Your task to perform on an android device: toggle priority inbox in the gmail app Image 0: 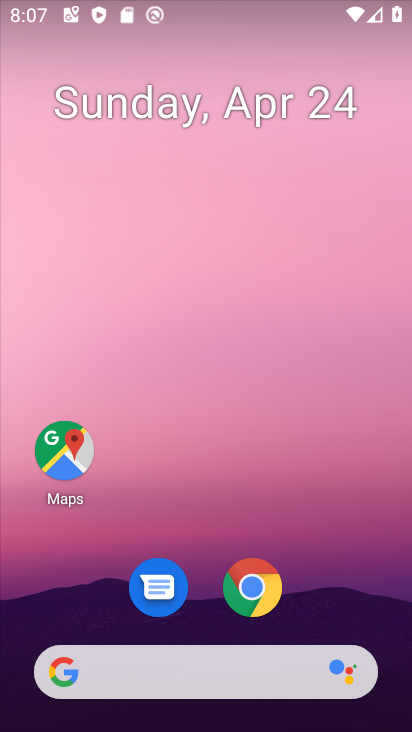
Step 0: drag from (323, 548) to (351, 576)
Your task to perform on an android device: toggle priority inbox in the gmail app Image 1: 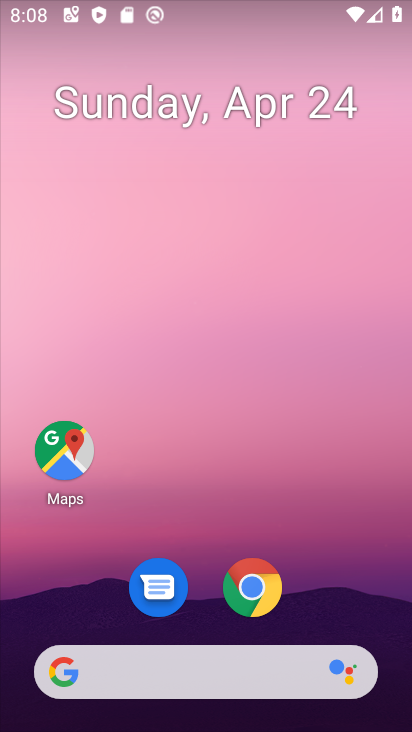
Step 1: drag from (341, 592) to (297, 44)
Your task to perform on an android device: toggle priority inbox in the gmail app Image 2: 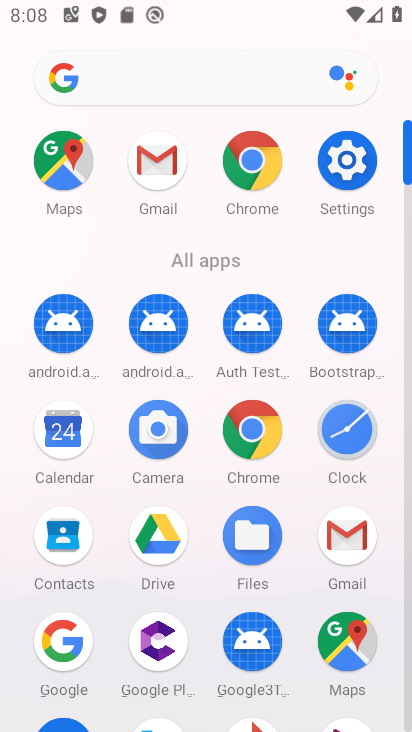
Step 2: click (159, 166)
Your task to perform on an android device: toggle priority inbox in the gmail app Image 3: 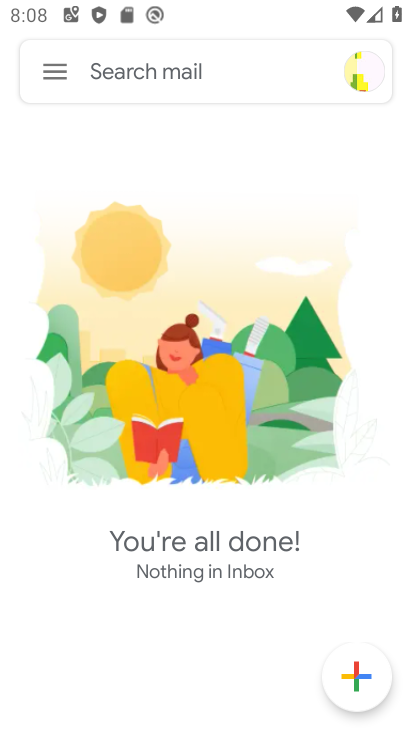
Step 3: click (62, 65)
Your task to perform on an android device: toggle priority inbox in the gmail app Image 4: 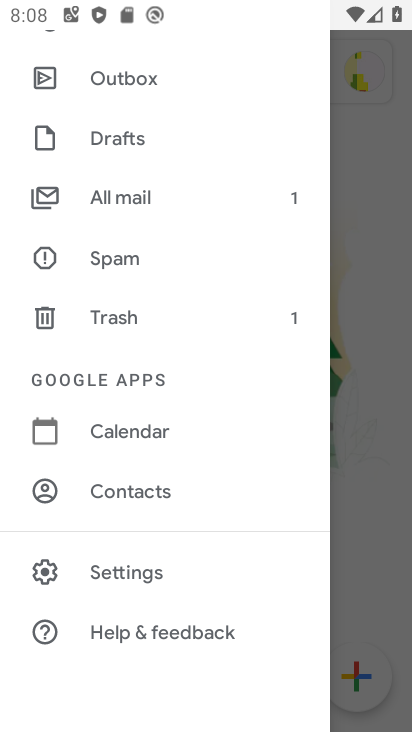
Step 4: click (151, 577)
Your task to perform on an android device: toggle priority inbox in the gmail app Image 5: 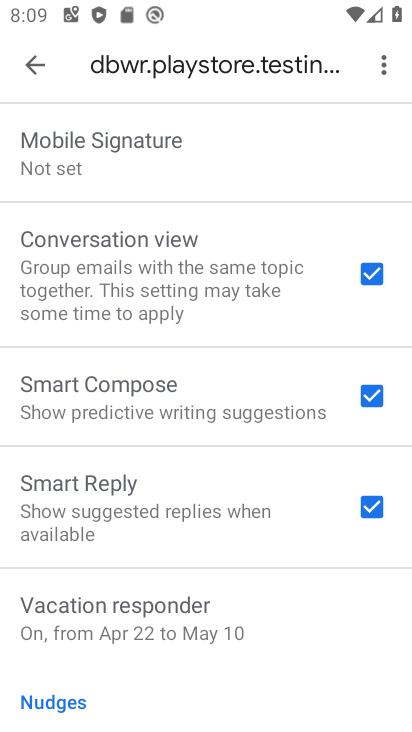
Step 5: drag from (177, 270) to (171, 690)
Your task to perform on an android device: toggle priority inbox in the gmail app Image 6: 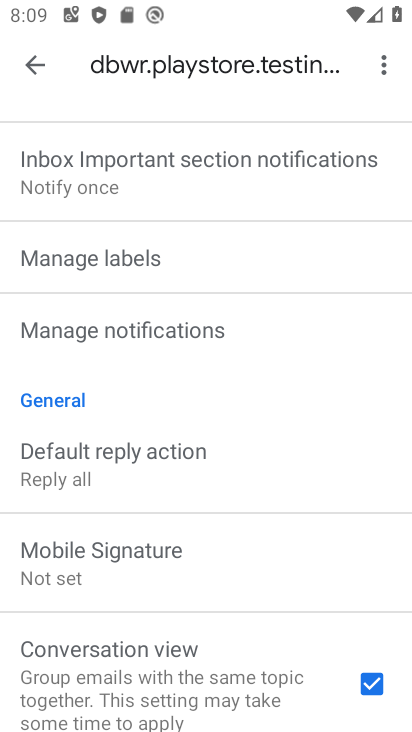
Step 6: drag from (194, 191) to (182, 633)
Your task to perform on an android device: toggle priority inbox in the gmail app Image 7: 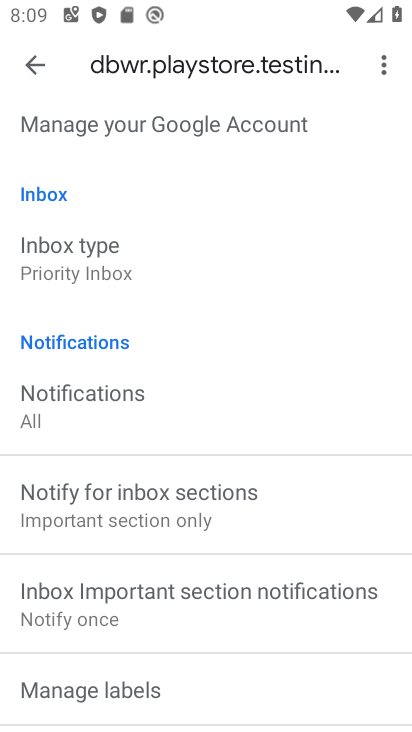
Step 7: click (154, 265)
Your task to perform on an android device: toggle priority inbox in the gmail app Image 8: 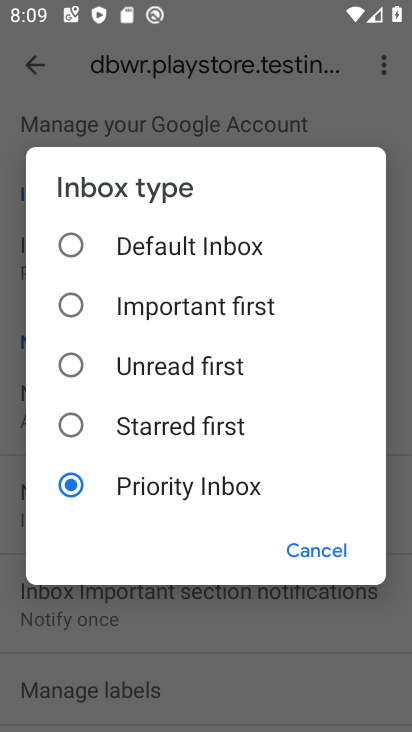
Step 8: click (178, 262)
Your task to perform on an android device: toggle priority inbox in the gmail app Image 9: 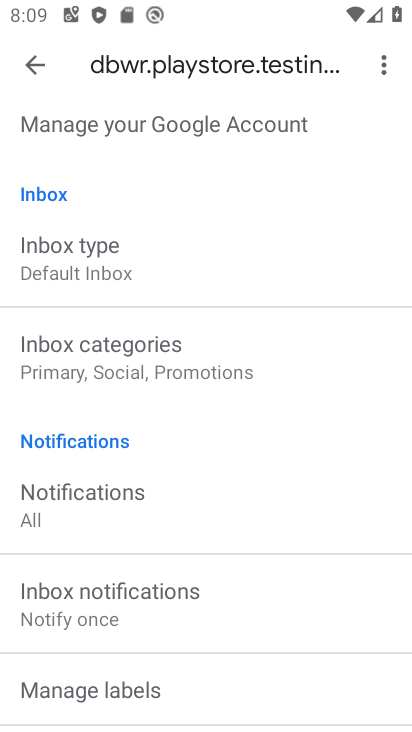
Step 9: task complete